Your task to perform on an android device: Search for flights from NYC to Buenos aires Image 0: 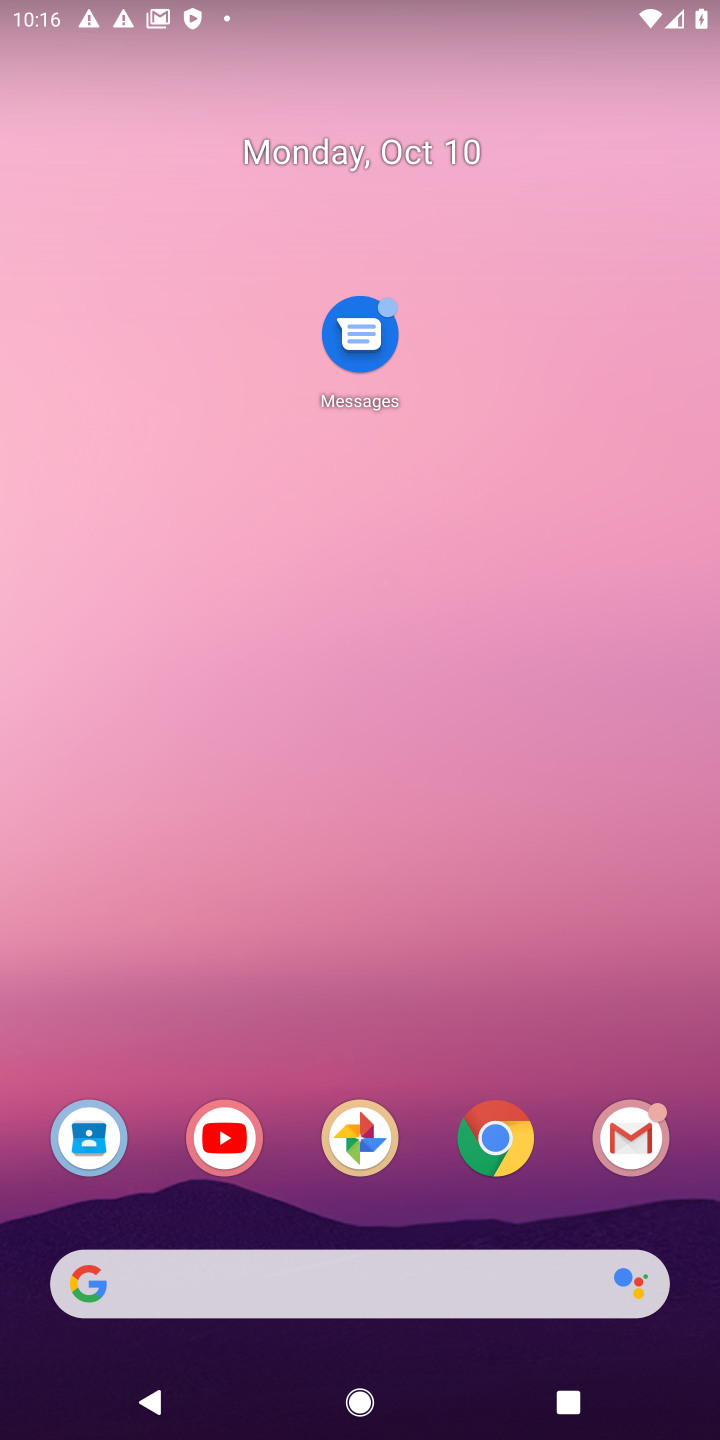
Step 0: click (501, 1152)
Your task to perform on an android device: Search for flights from NYC to Buenos aires Image 1: 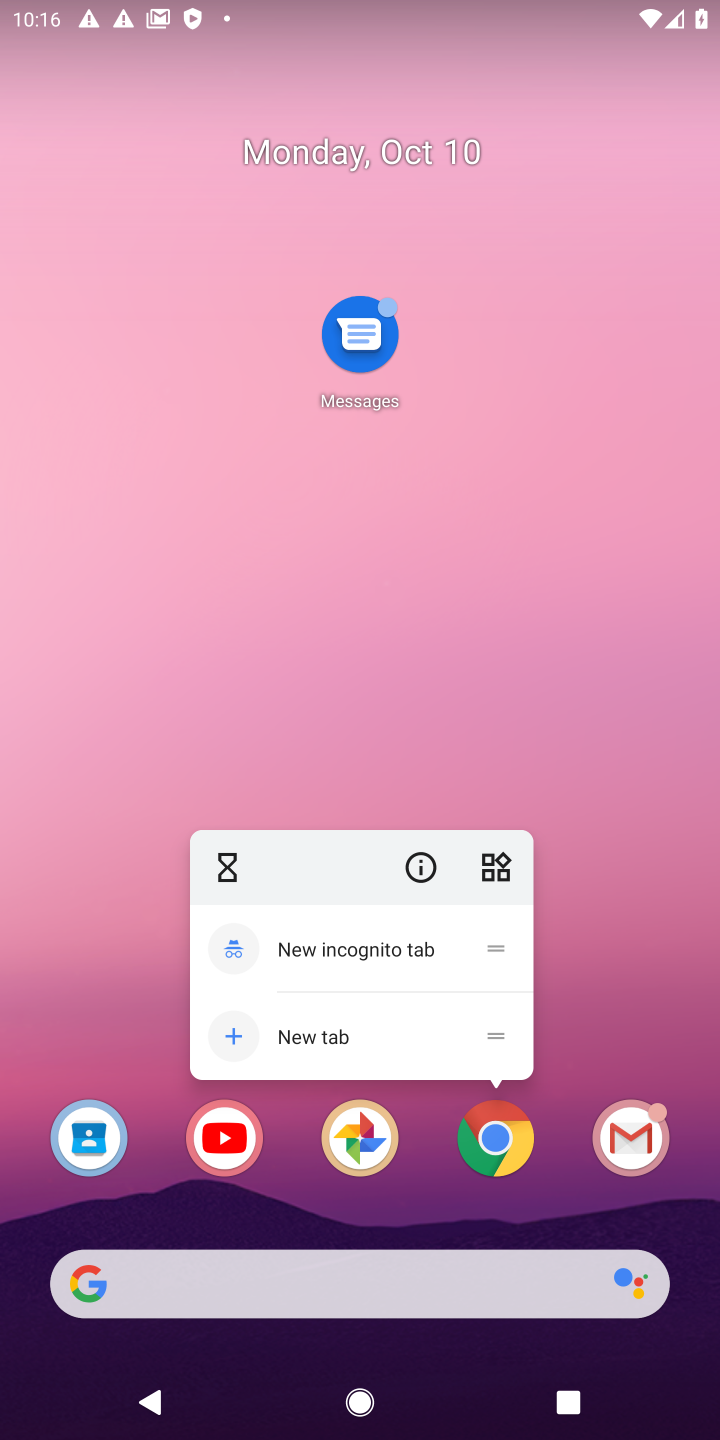
Step 1: click (516, 1136)
Your task to perform on an android device: Search for flights from NYC to Buenos aires Image 2: 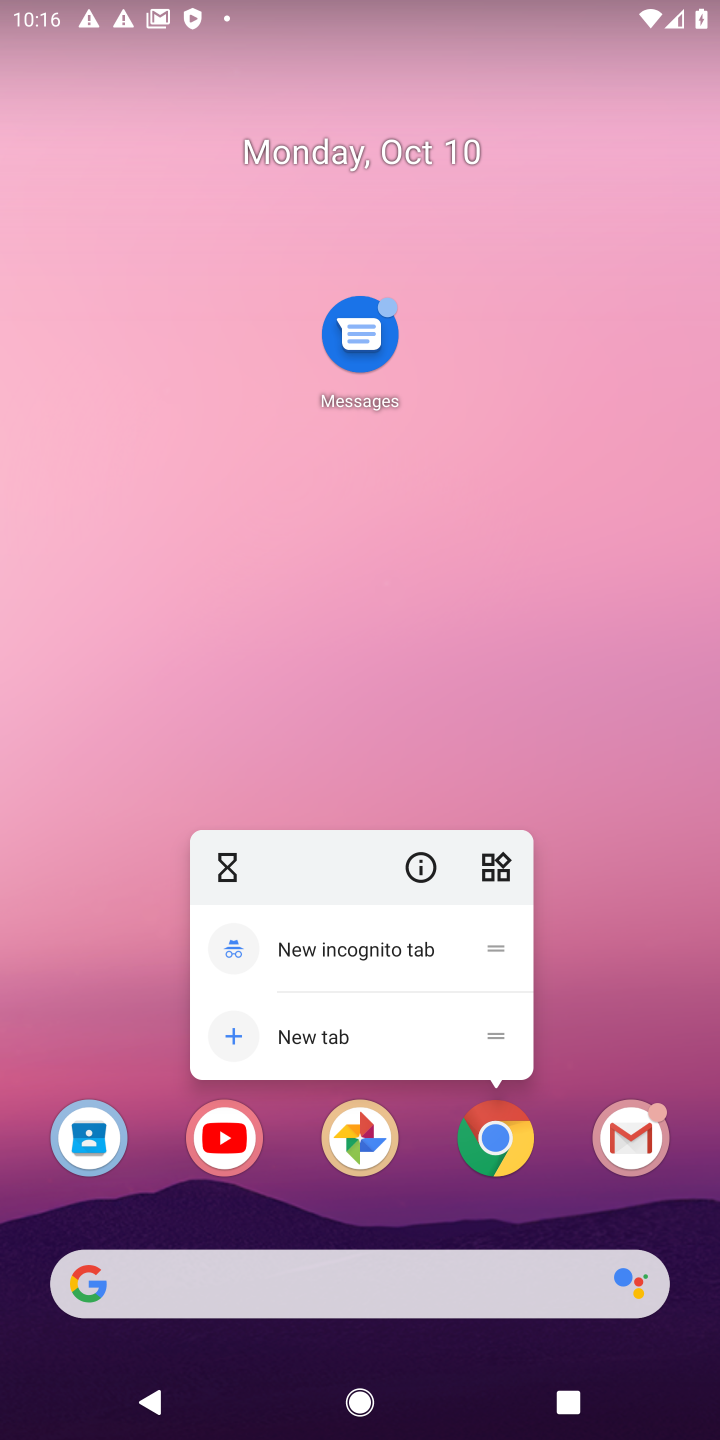
Step 2: click (512, 1145)
Your task to perform on an android device: Search for flights from NYC to Buenos aires Image 3: 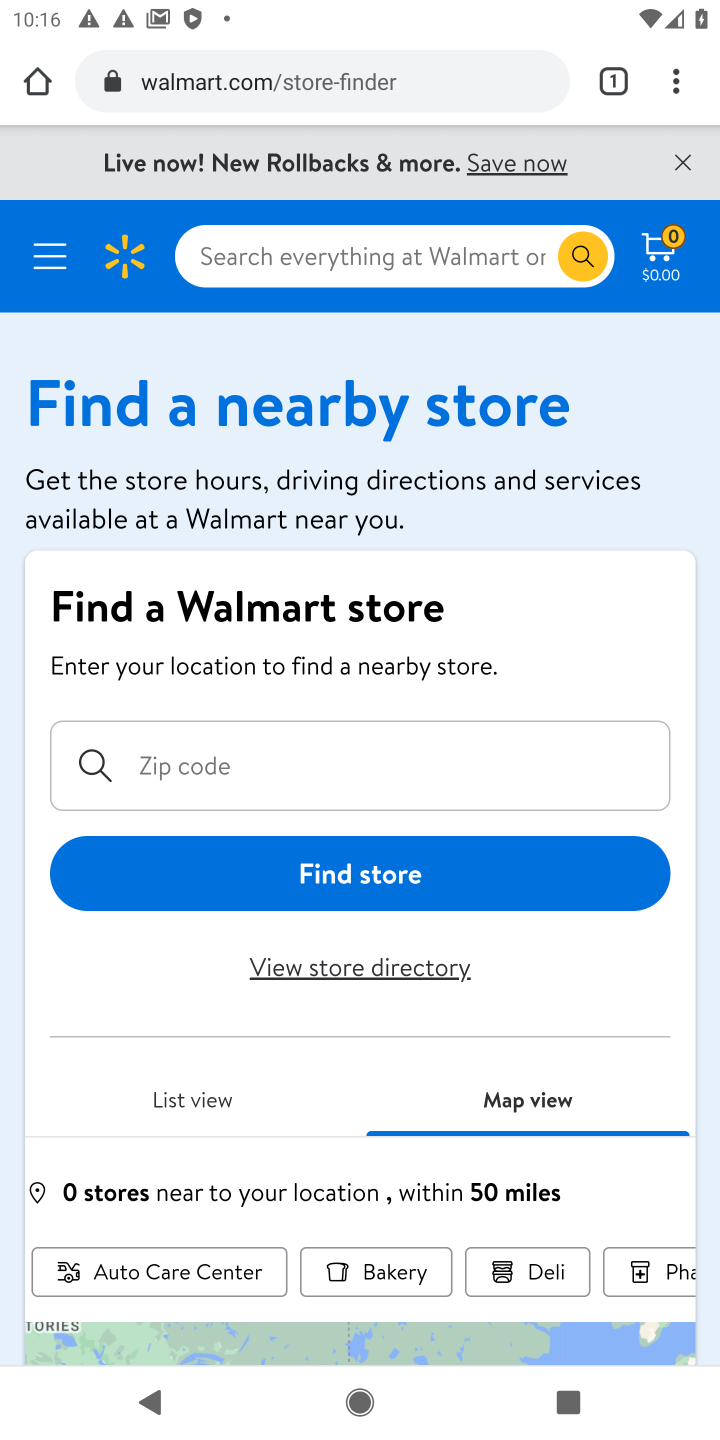
Step 3: click (309, 87)
Your task to perform on an android device: Search for flights from NYC to Buenos aires Image 4: 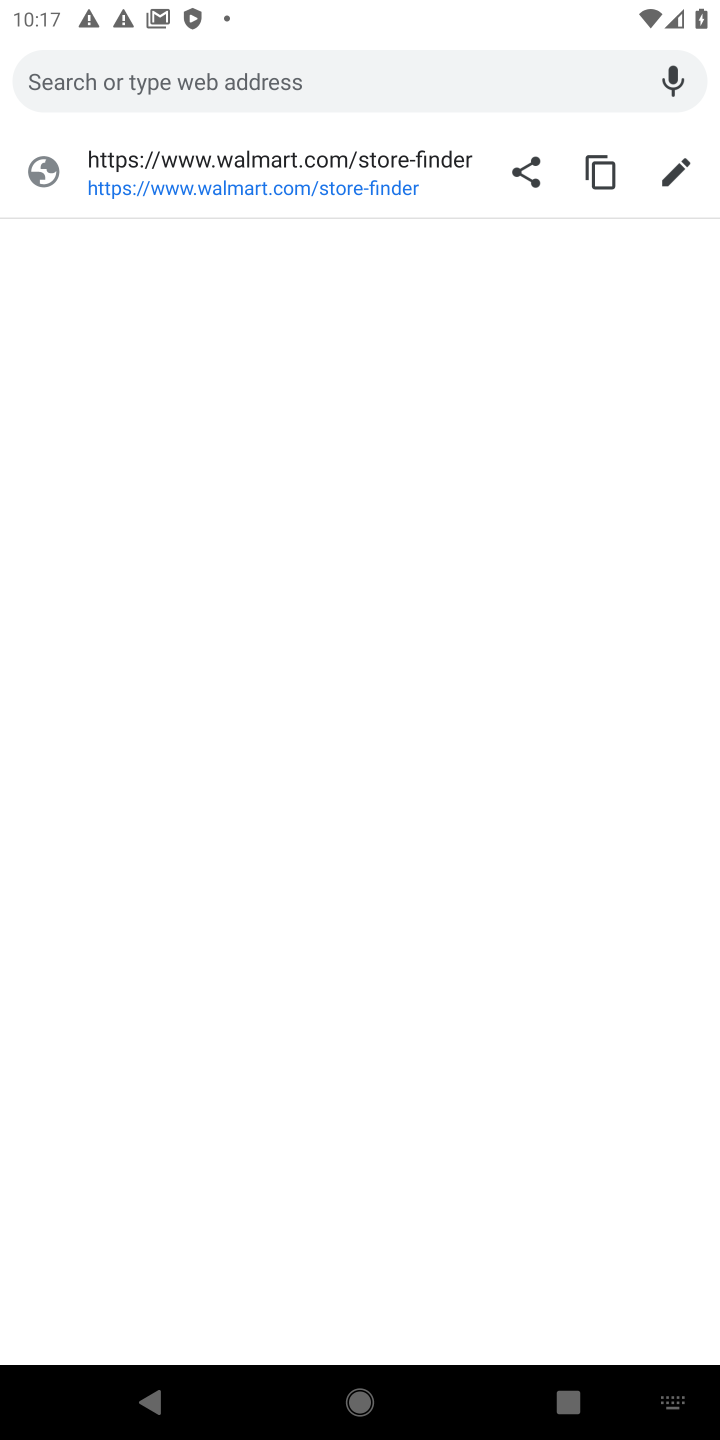
Step 4: type "flights from NYC to Buenos aires"
Your task to perform on an android device: Search for flights from NYC to Buenos aires Image 5: 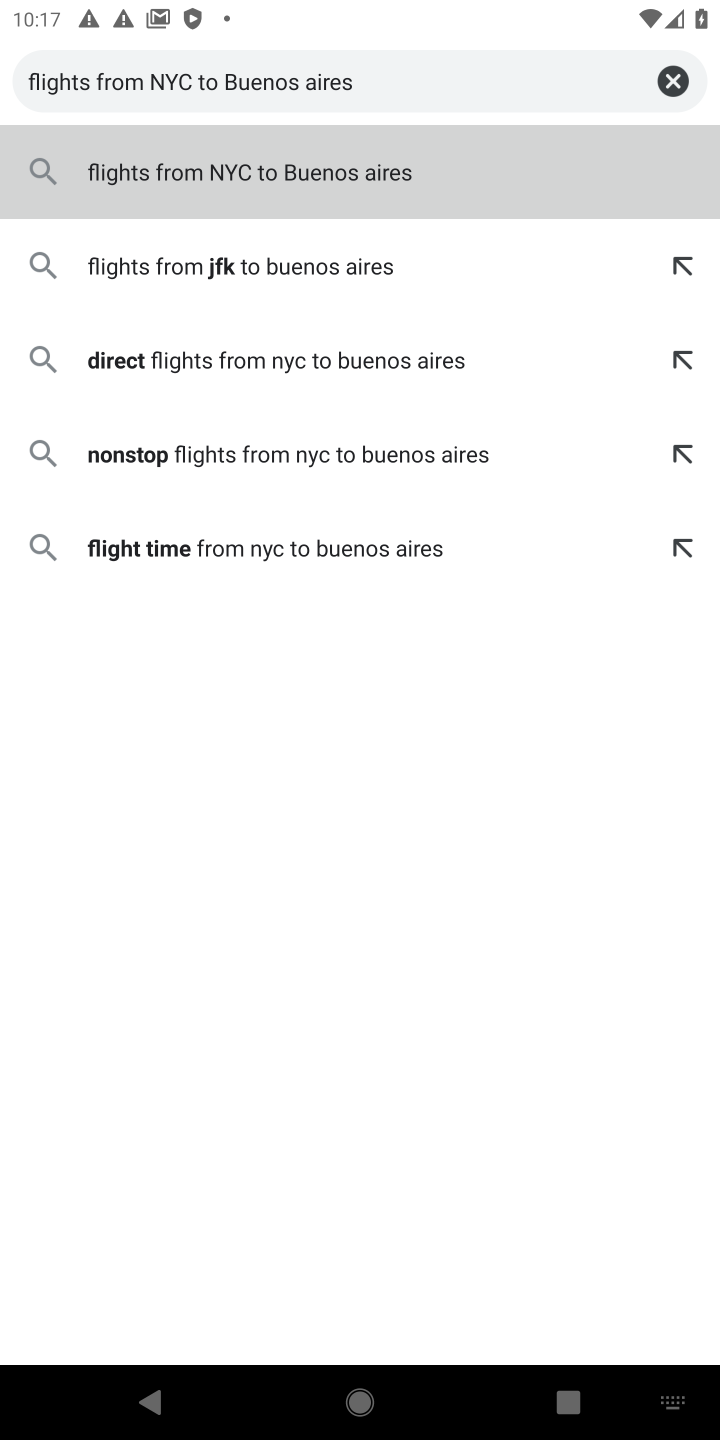
Step 5: press enter
Your task to perform on an android device: Search for flights from NYC to Buenos aires Image 6: 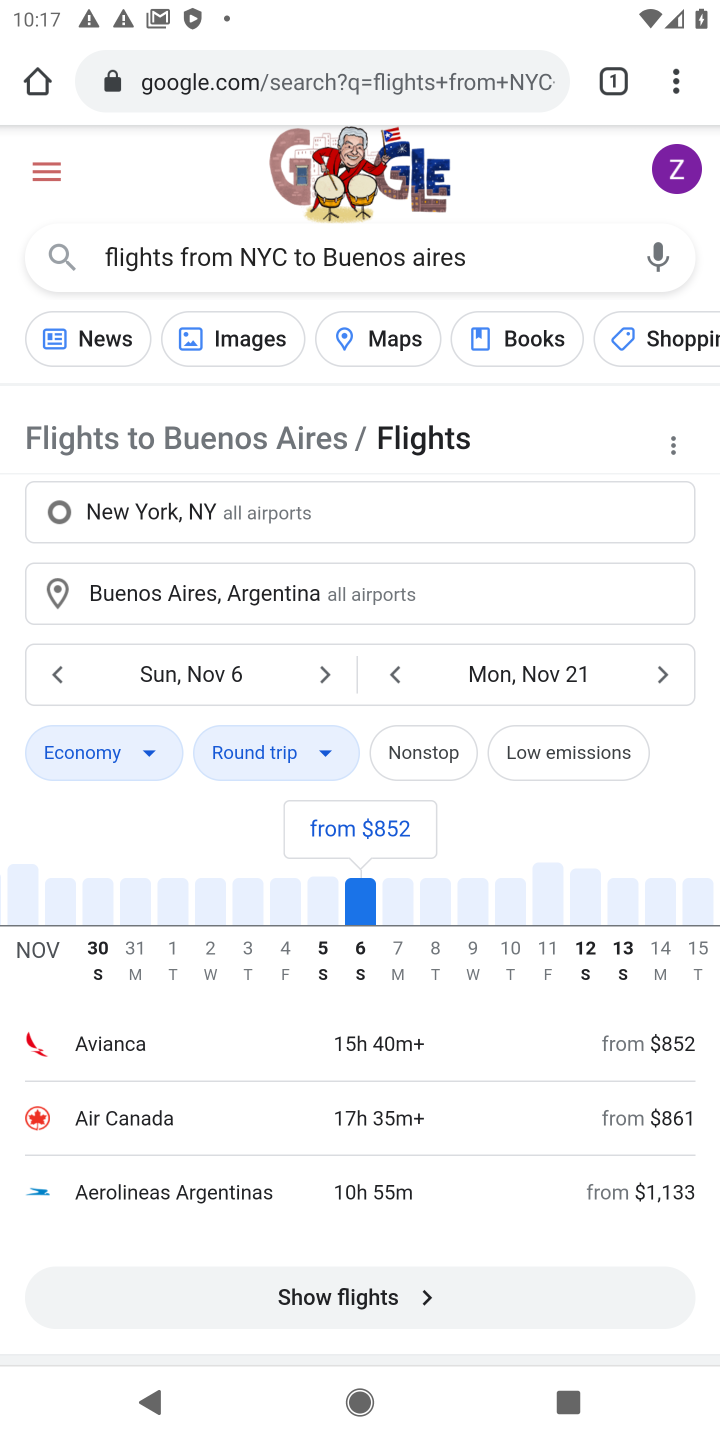
Step 6: drag from (471, 1067) to (467, 888)
Your task to perform on an android device: Search for flights from NYC to Buenos aires Image 7: 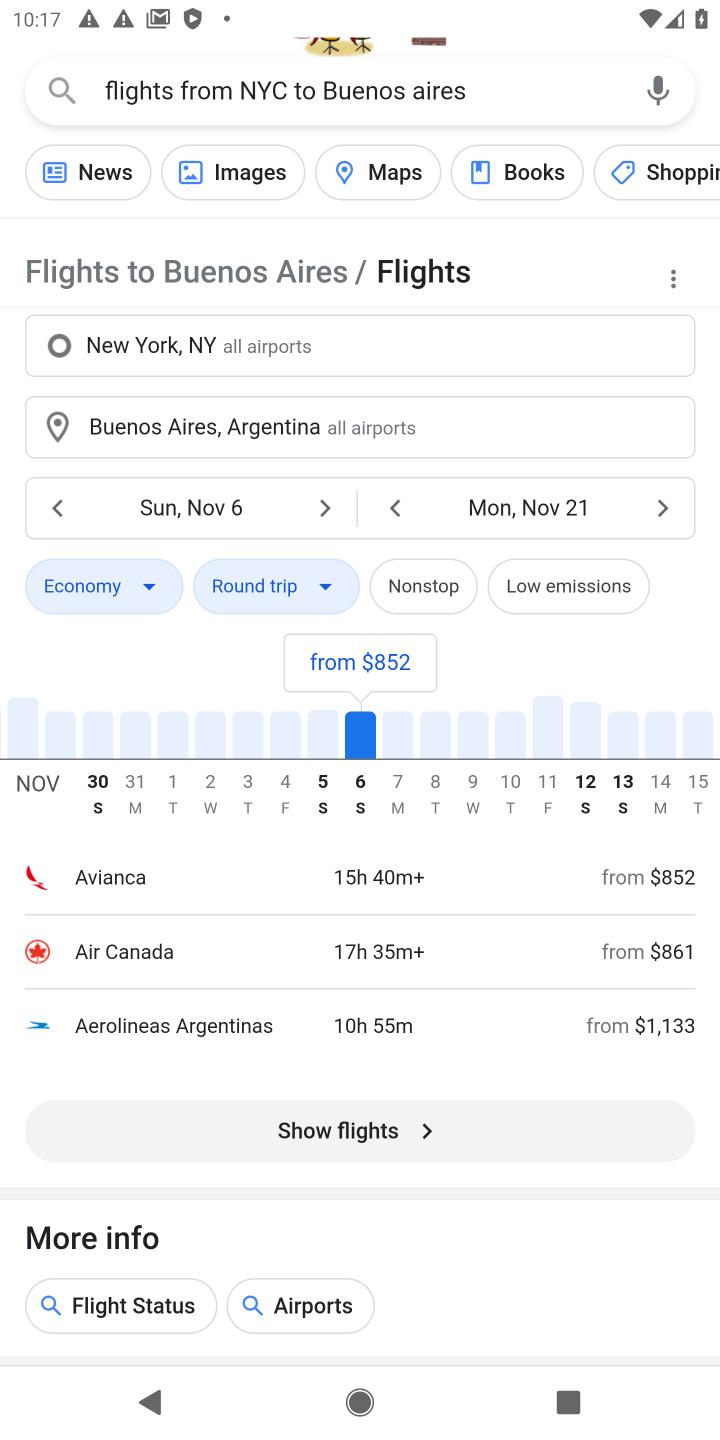
Step 7: click (428, 1141)
Your task to perform on an android device: Search for flights from NYC to Buenos aires Image 8: 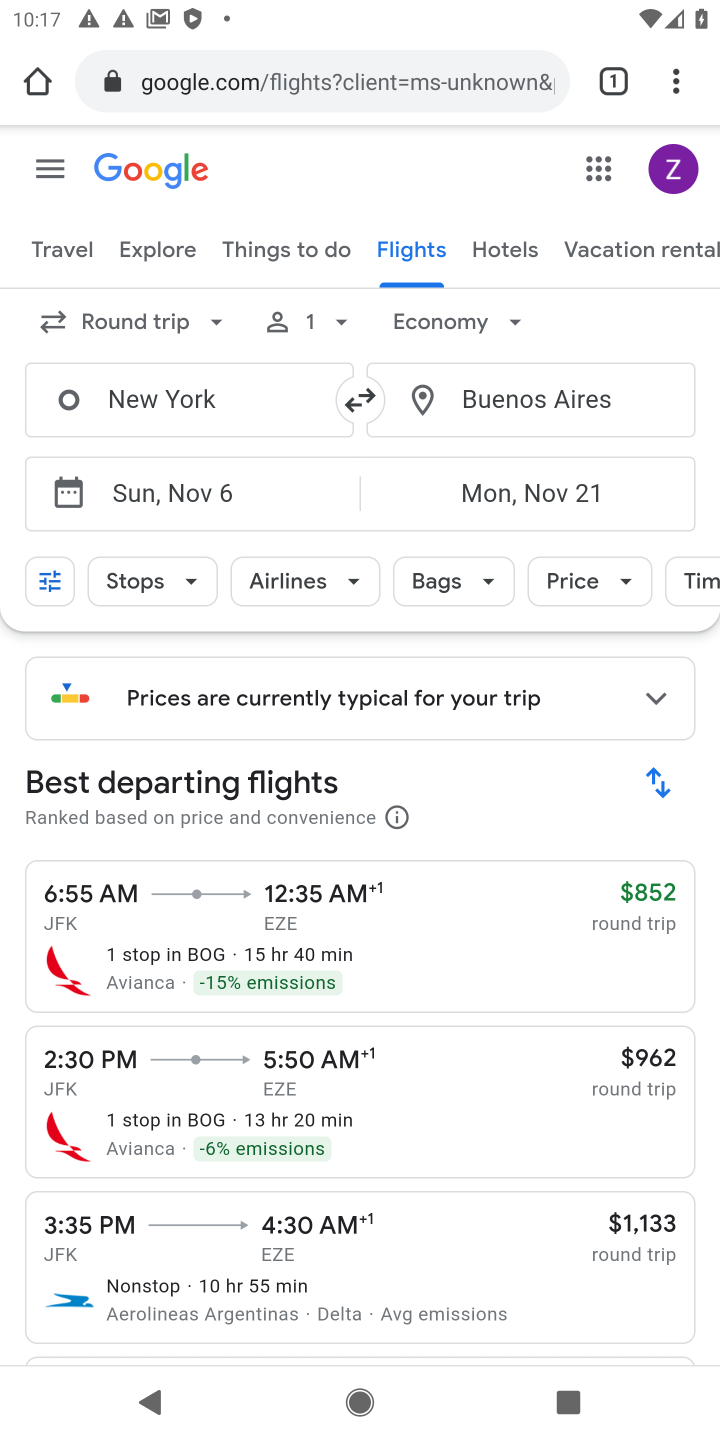
Step 8: drag from (428, 1097) to (372, 437)
Your task to perform on an android device: Search for flights from NYC to Buenos aires Image 9: 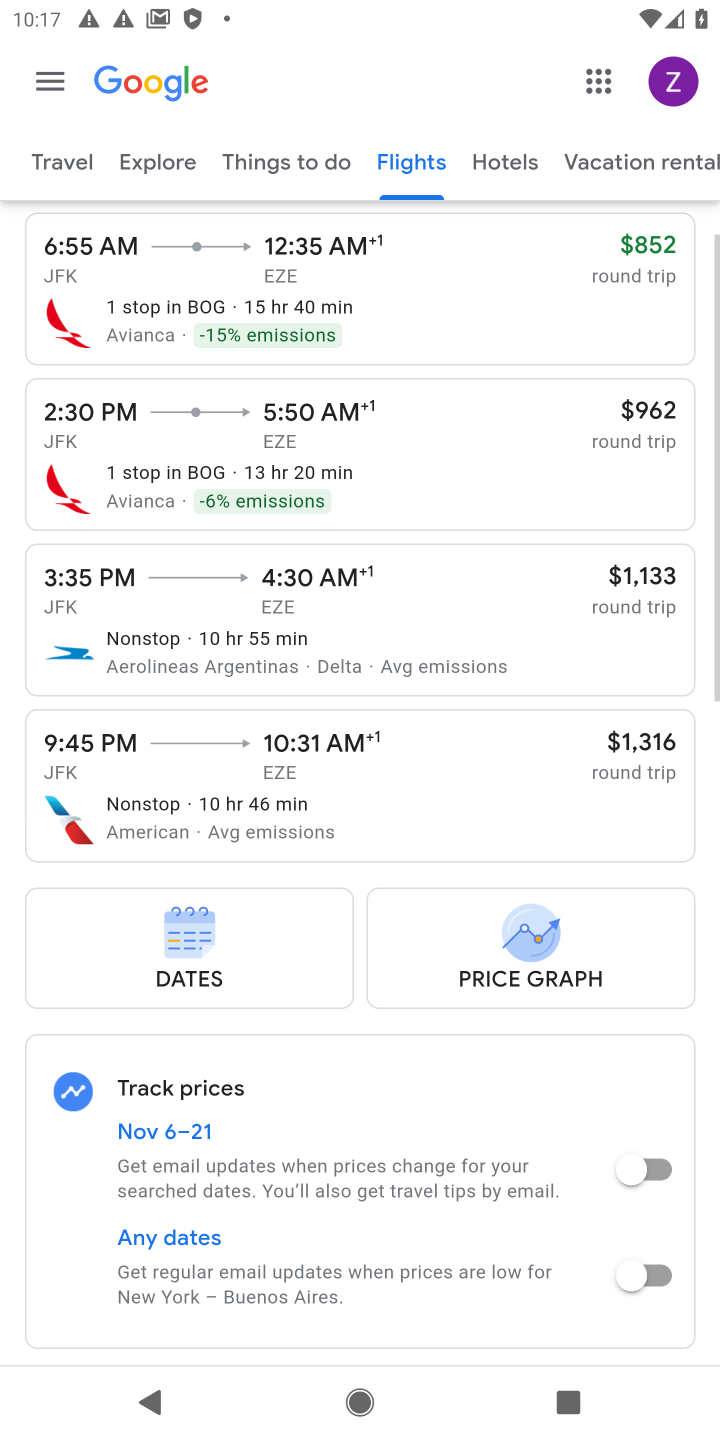
Step 9: drag from (472, 869) to (471, 449)
Your task to perform on an android device: Search for flights from NYC to Buenos aires Image 10: 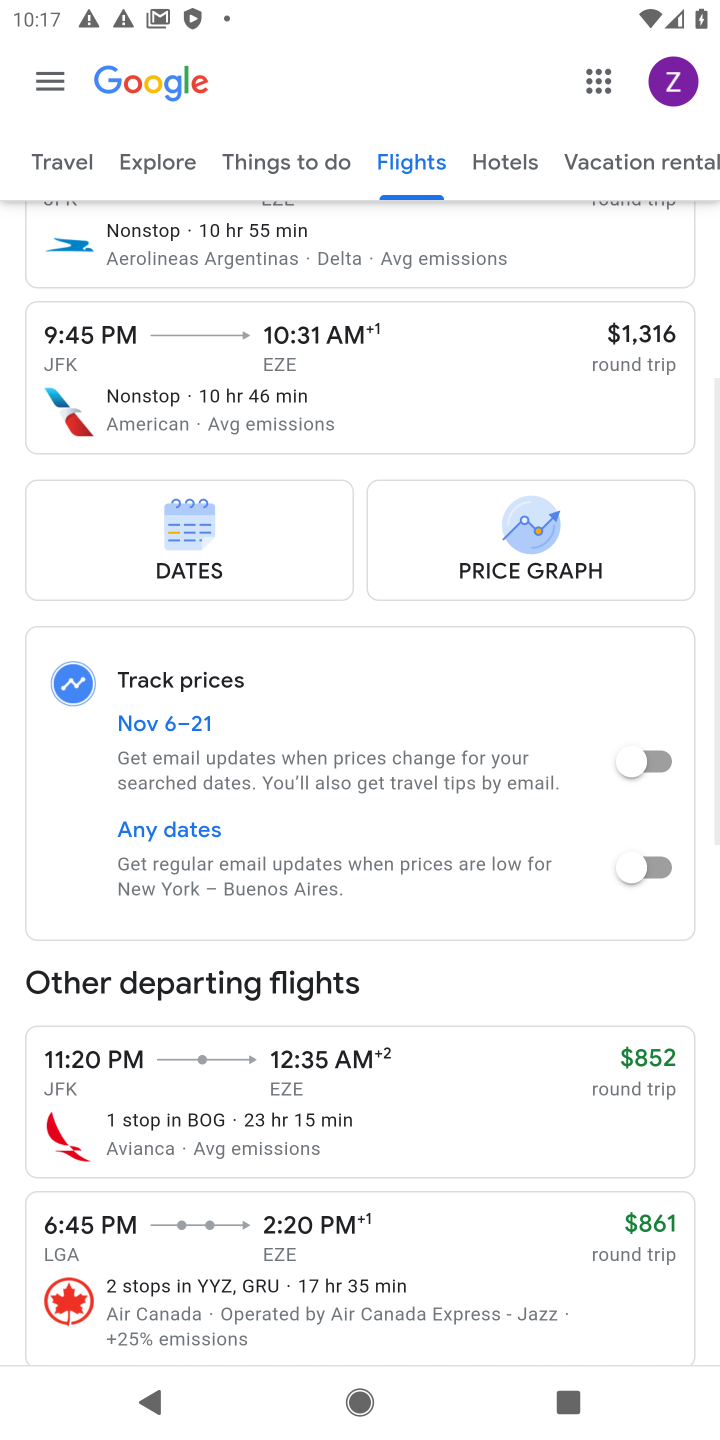
Step 10: drag from (447, 975) to (471, 508)
Your task to perform on an android device: Search for flights from NYC to Buenos aires Image 11: 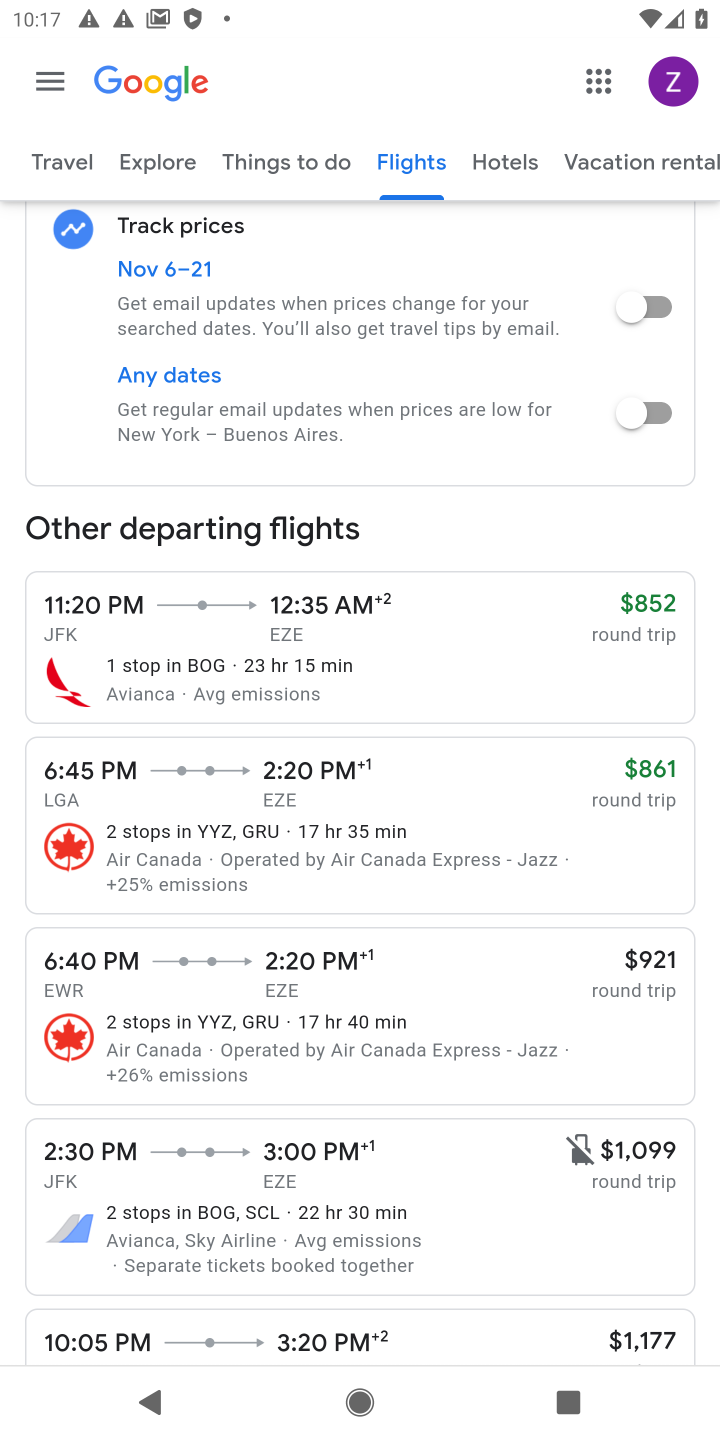
Step 11: drag from (416, 972) to (409, 411)
Your task to perform on an android device: Search for flights from NYC to Buenos aires Image 12: 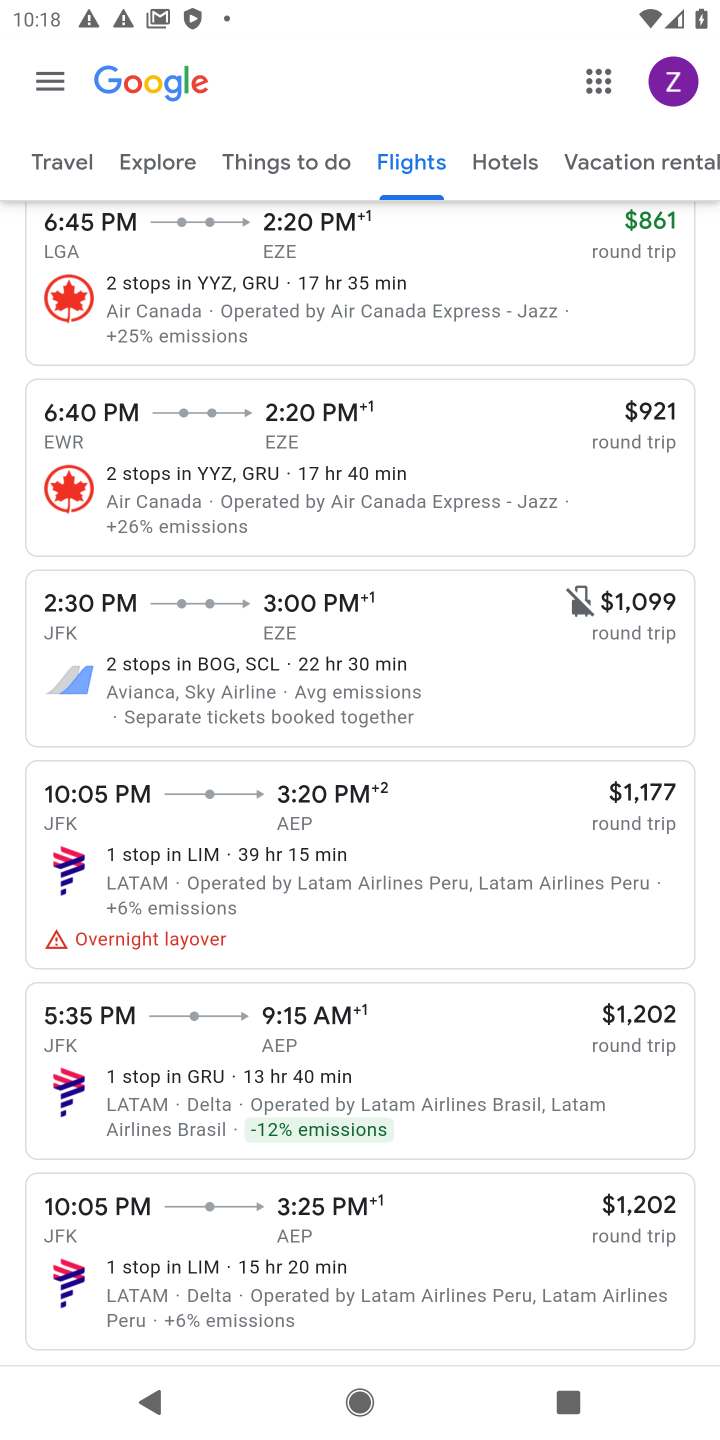
Step 12: drag from (347, 983) to (327, 411)
Your task to perform on an android device: Search for flights from NYC to Buenos aires Image 13: 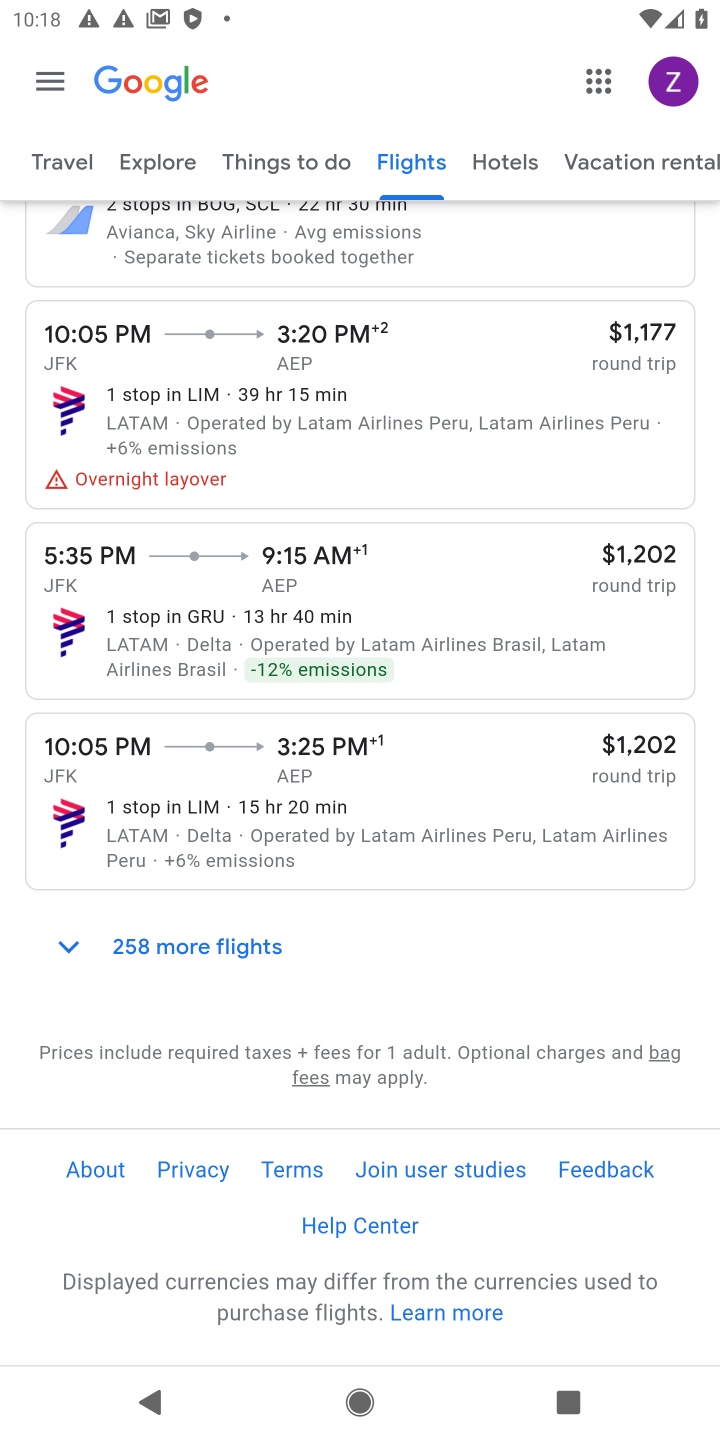
Step 13: drag from (358, 890) to (348, 449)
Your task to perform on an android device: Search for flights from NYC to Buenos aires Image 14: 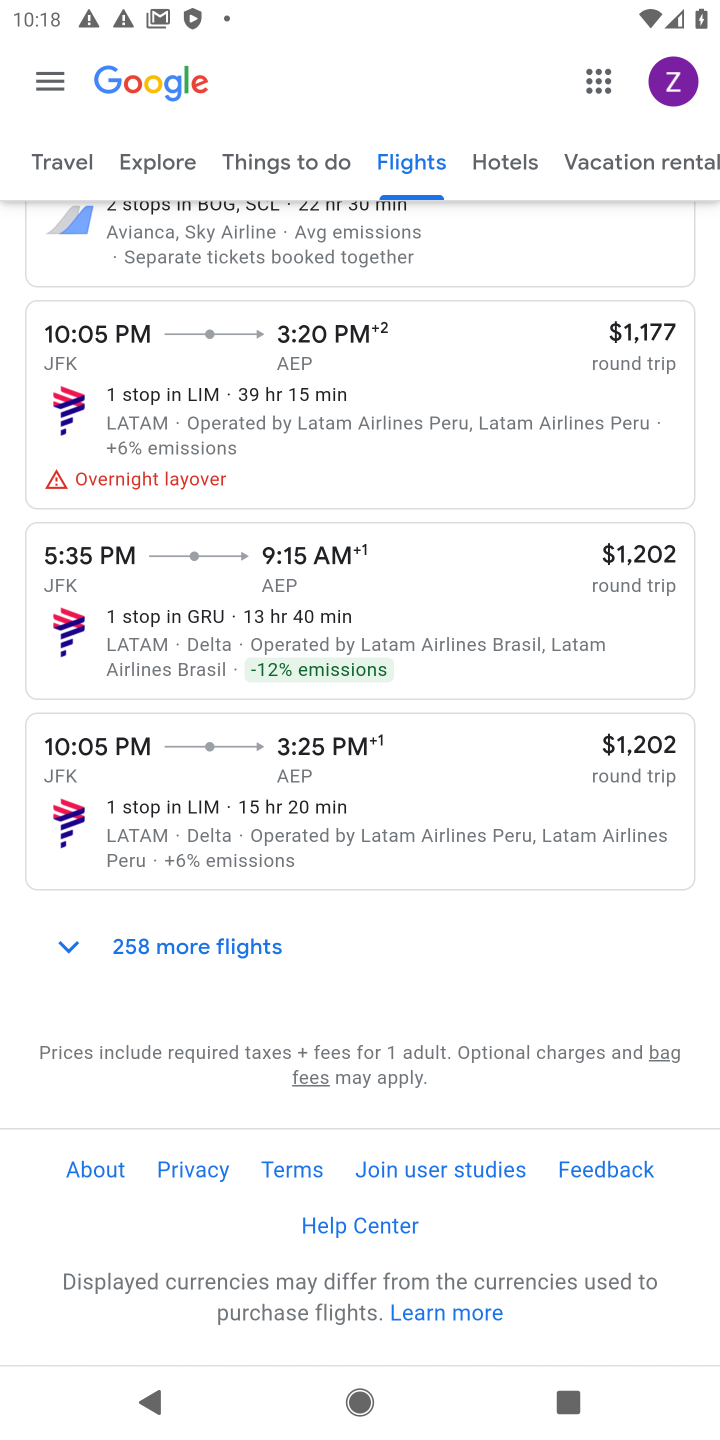
Step 14: drag from (353, 406) to (359, 569)
Your task to perform on an android device: Search for flights from NYC to Buenos aires Image 15: 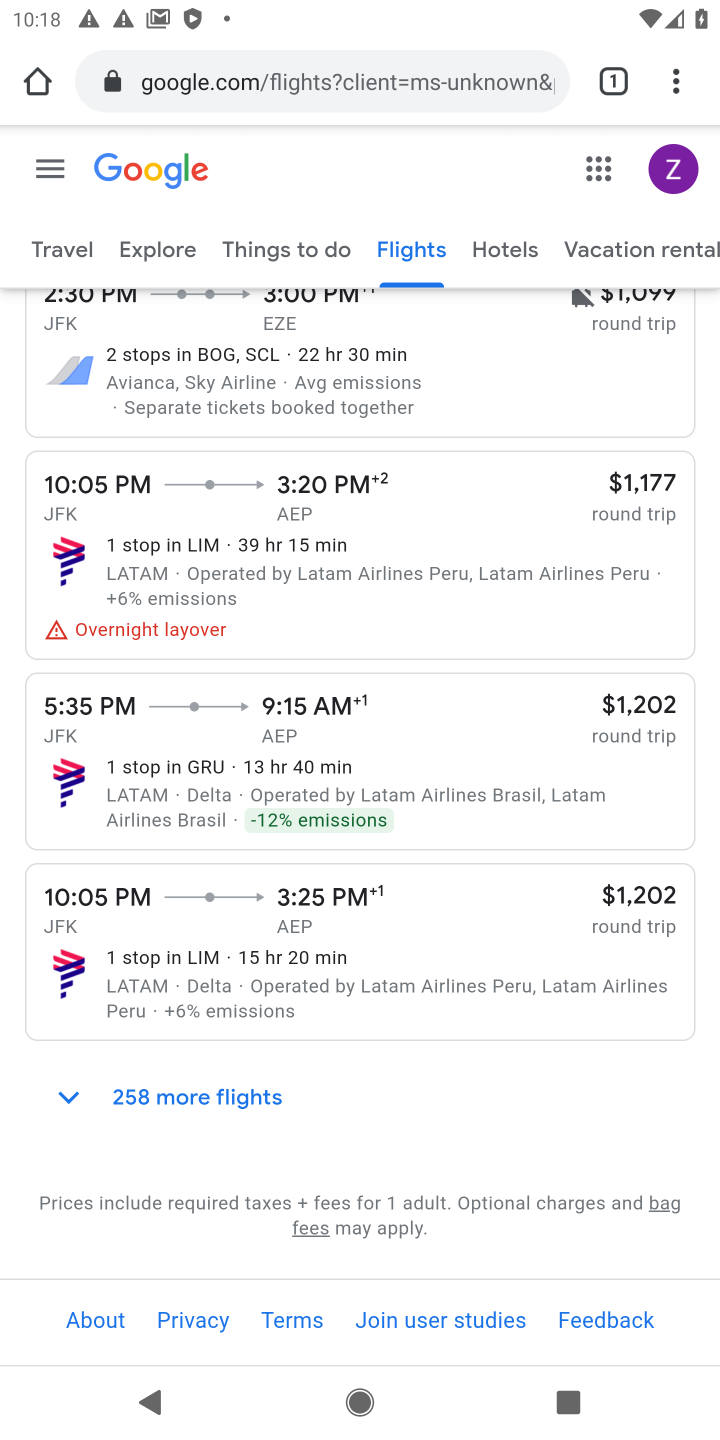
Step 15: click (181, 1097)
Your task to perform on an android device: Search for flights from NYC to Buenos aires Image 16: 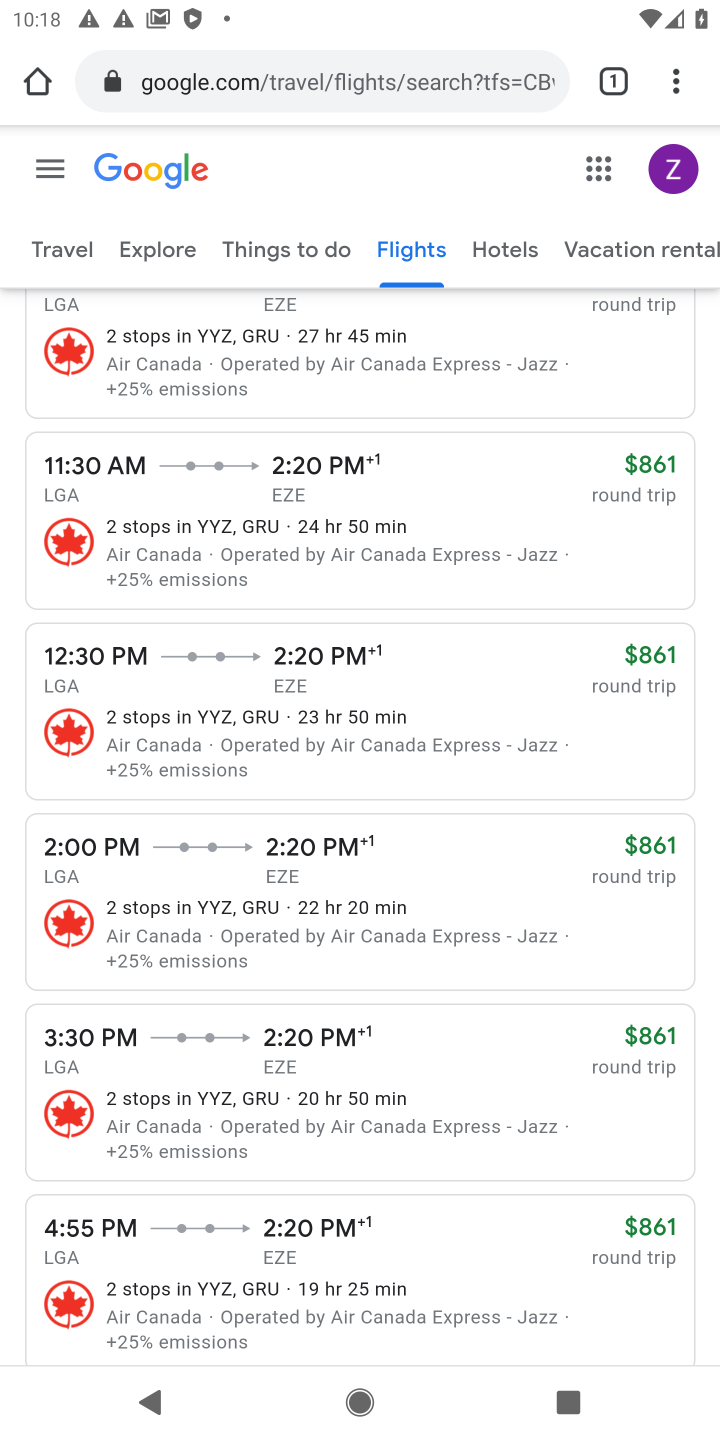
Step 16: task complete